Your task to perform on an android device: change the clock display to digital Image 0: 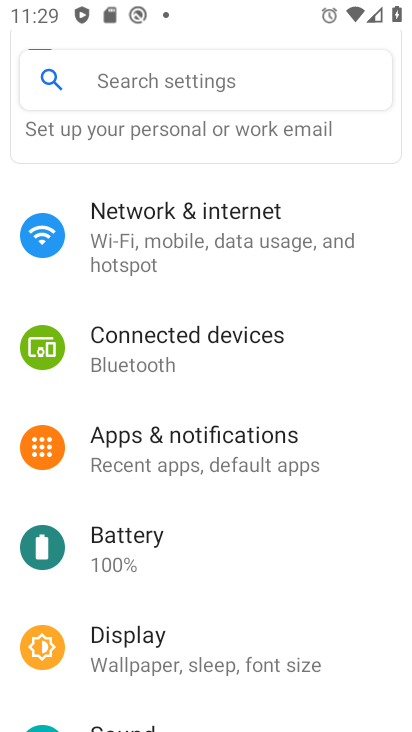
Step 0: press home button
Your task to perform on an android device: change the clock display to digital Image 1: 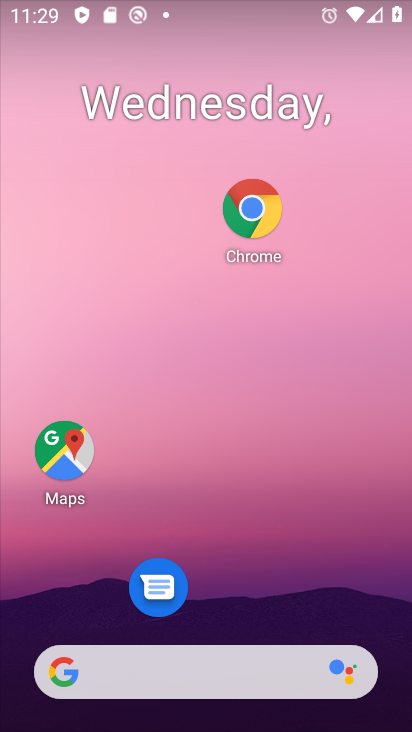
Step 1: drag from (241, 575) to (234, 145)
Your task to perform on an android device: change the clock display to digital Image 2: 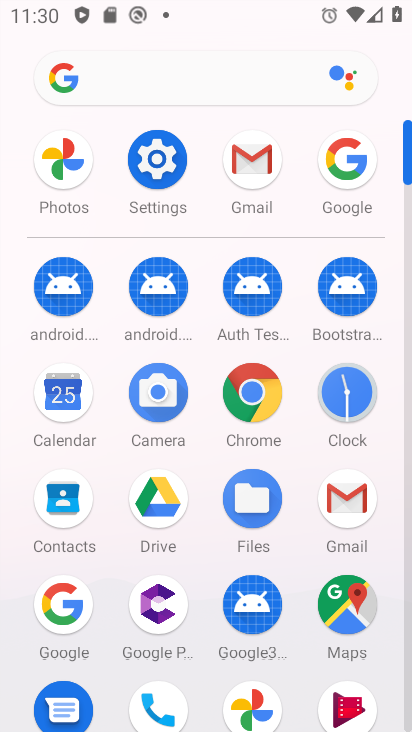
Step 2: click (351, 397)
Your task to perform on an android device: change the clock display to digital Image 3: 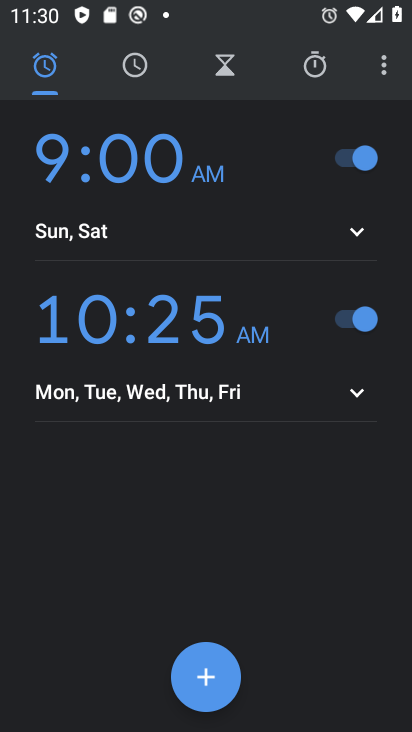
Step 3: click (381, 79)
Your task to perform on an android device: change the clock display to digital Image 4: 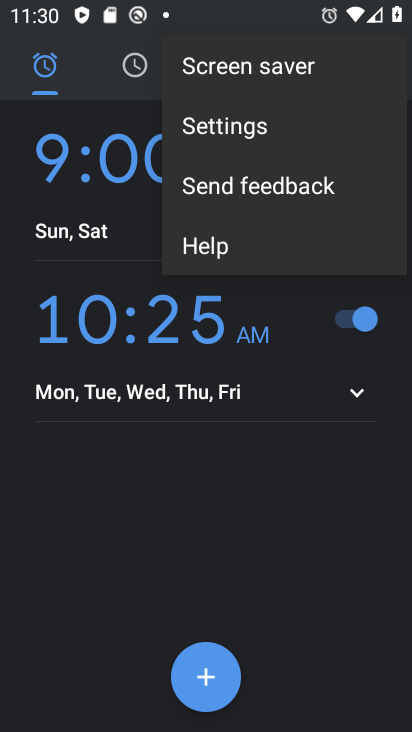
Step 4: click (257, 130)
Your task to perform on an android device: change the clock display to digital Image 5: 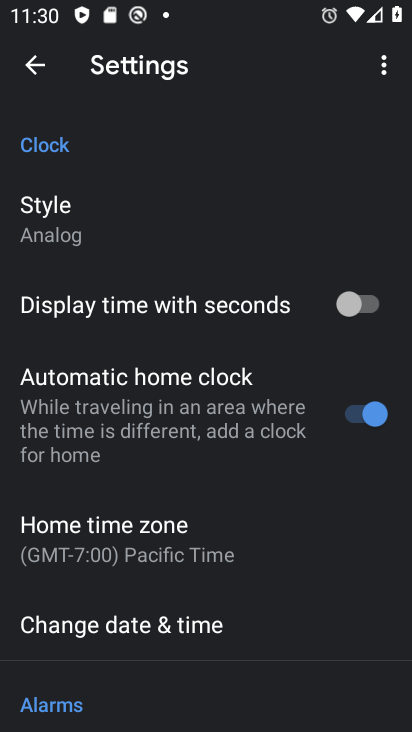
Step 5: click (97, 229)
Your task to perform on an android device: change the clock display to digital Image 6: 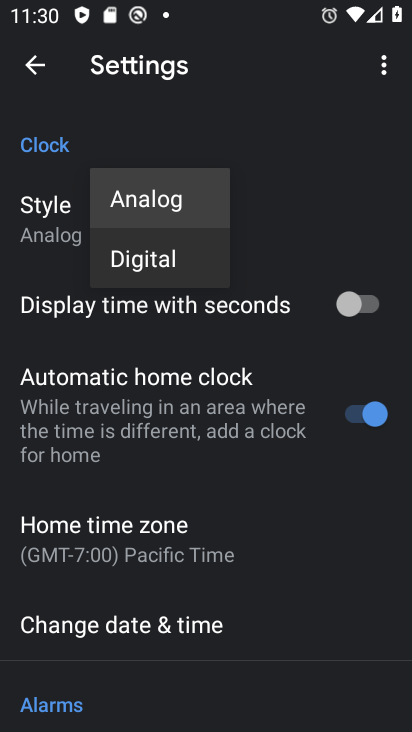
Step 6: click (150, 269)
Your task to perform on an android device: change the clock display to digital Image 7: 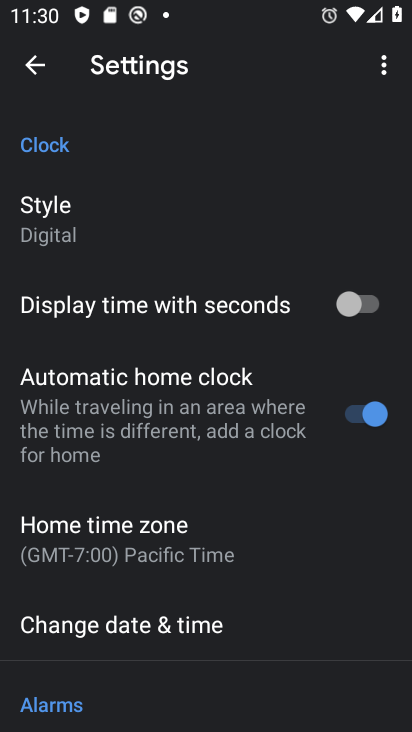
Step 7: task complete